Your task to perform on an android device: delete browsing data in the chrome app Image 0: 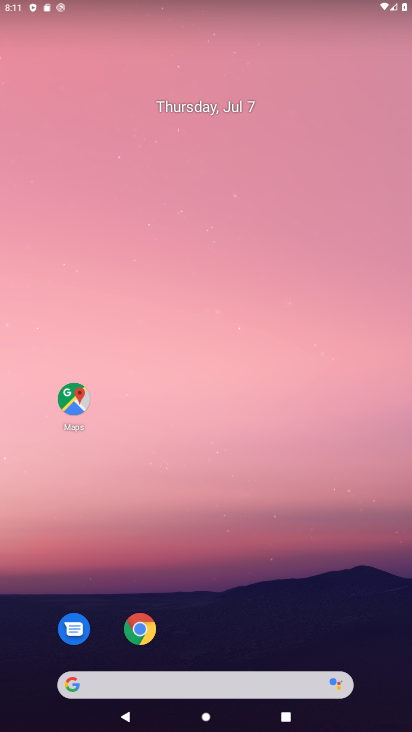
Step 0: drag from (301, 668) to (356, 16)
Your task to perform on an android device: delete browsing data in the chrome app Image 1: 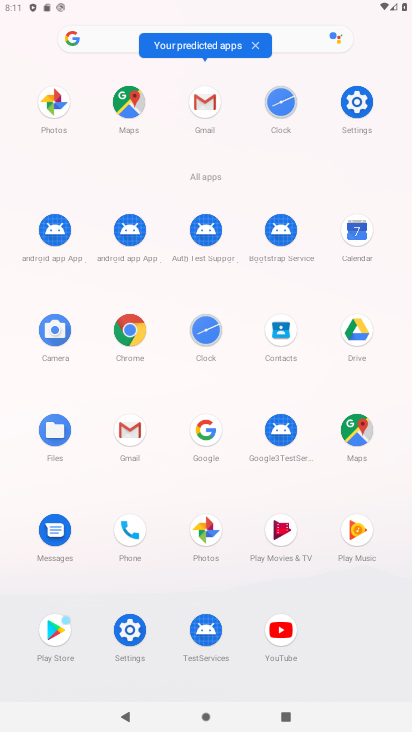
Step 1: click (138, 335)
Your task to perform on an android device: delete browsing data in the chrome app Image 2: 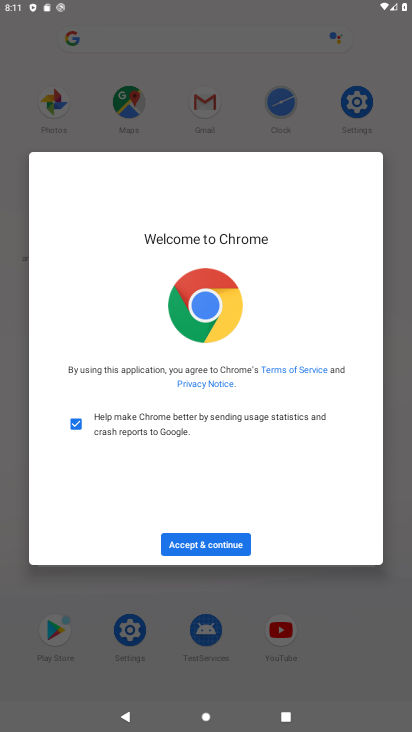
Step 2: click (236, 540)
Your task to perform on an android device: delete browsing data in the chrome app Image 3: 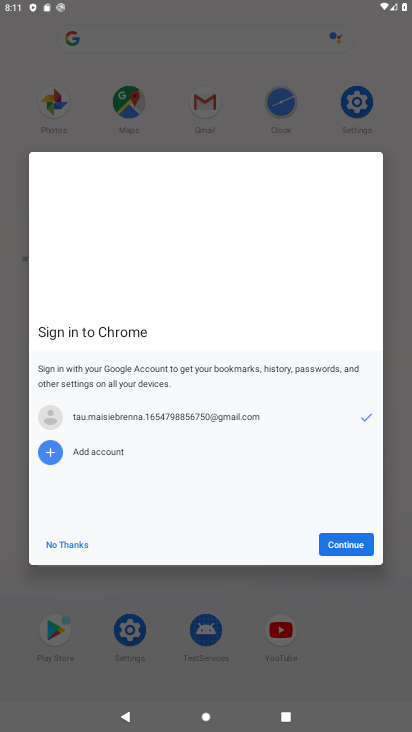
Step 3: click (66, 552)
Your task to perform on an android device: delete browsing data in the chrome app Image 4: 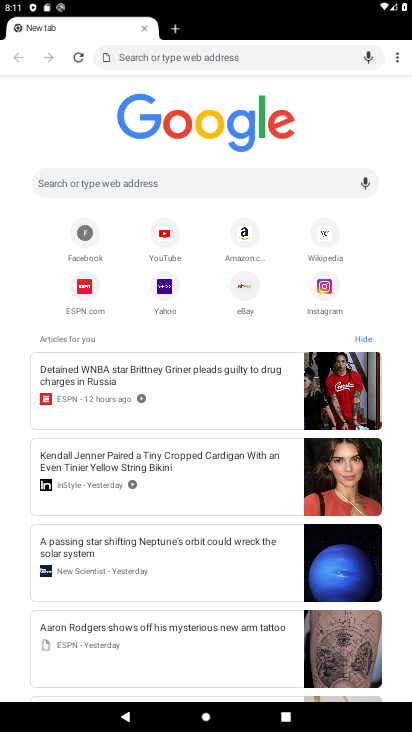
Step 4: task complete